Your task to perform on an android device: turn on location history Image 0: 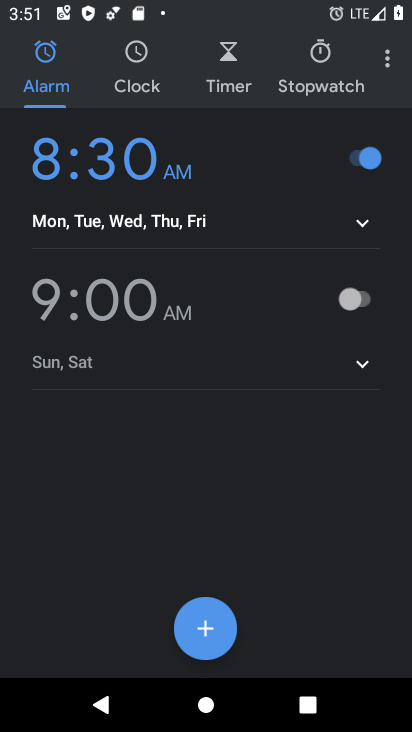
Step 0: press back button
Your task to perform on an android device: turn on location history Image 1: 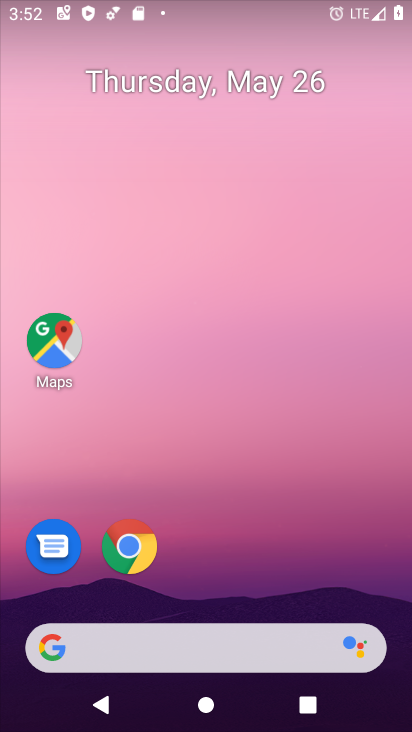
Step 1: drag from (250, 594) to (262, 53)
Your task to perform on an android device: turn on location history Image 2: 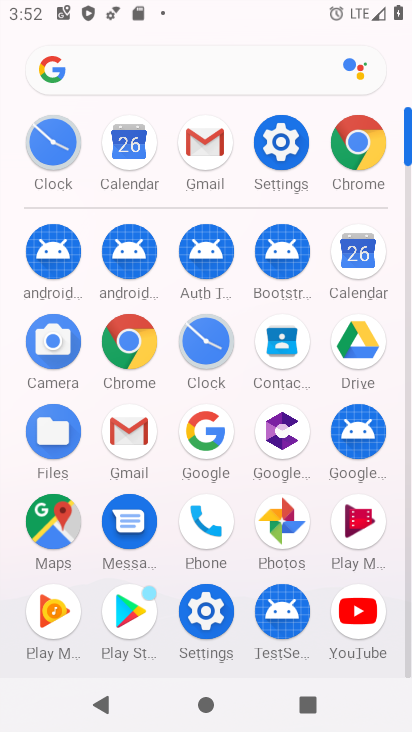
Step 2: click (277, 133)
Your task to perform on an android device: turn on location history Image 3: 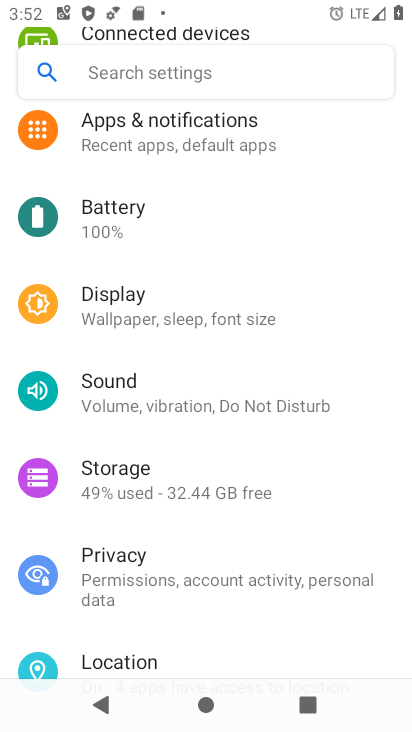
Step 3: drag from (133, 608) to (180, 219)
Your task to perform on an android device: turn on location history Image 4: 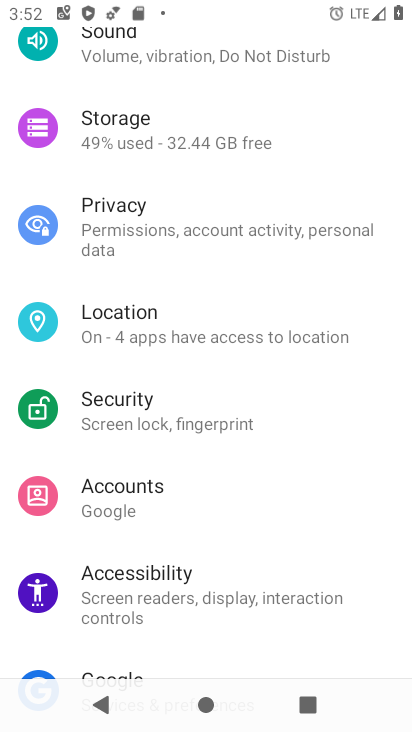
Step 4: click (103, 310)
Your task to perform on an android device: turn on location history Image 5: 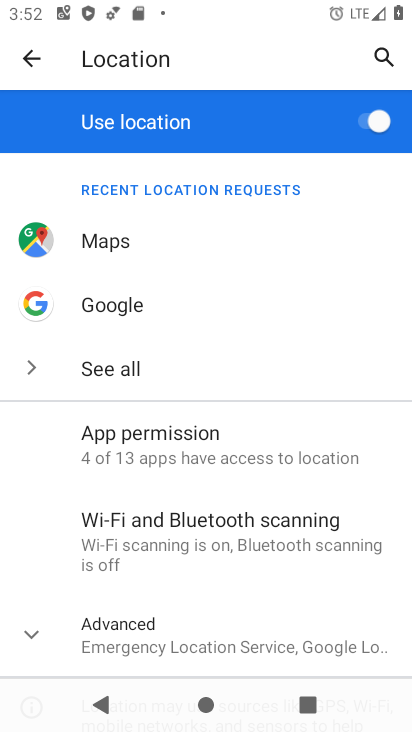
Step 5: drag from (173, 609) to (189, 229)
Your task to perform on an android device: turn on location history Image 6: 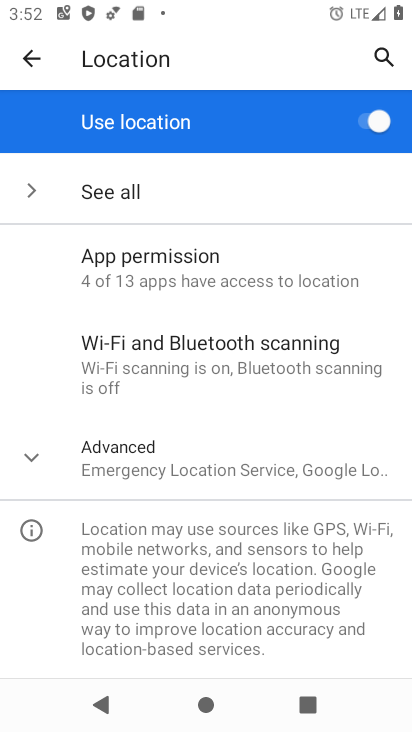
Step 6: click (228, 462)
Your task to perform on an android device: turn on location history Image 7: 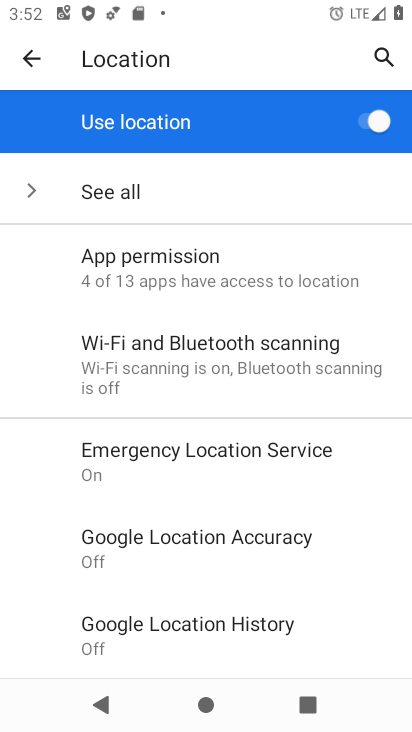
Step 7: click (195, 622)
Your task to perform on an android device: turn on location history Image 8: 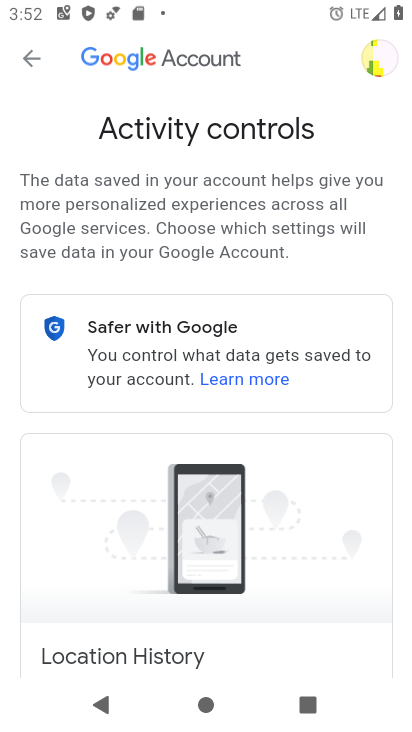
Step 8: drag from (204, 608) to (267, 124)
Your task to perform on an android device: turn on location history Image 9: 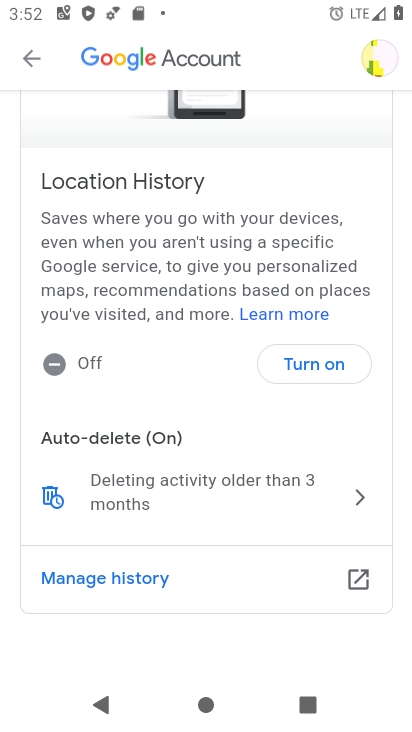
Step 9: click (318, 367)
Your task to perform on an android device: turn on location history Image 10: 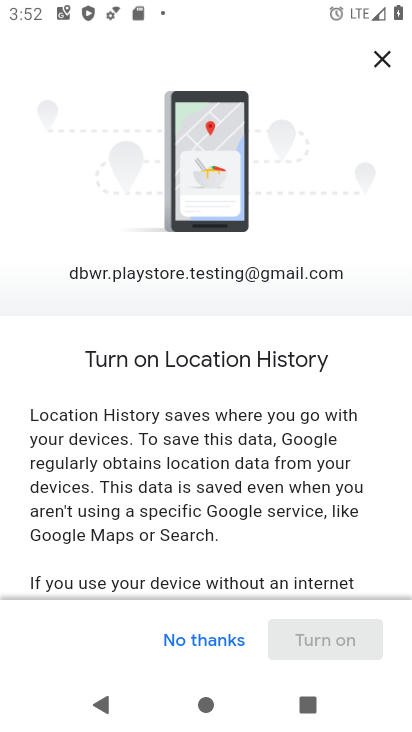
Step 10: drag from (228, 530) to (266, 75)
Your task to perform on an android device: turn on location history Image 11: 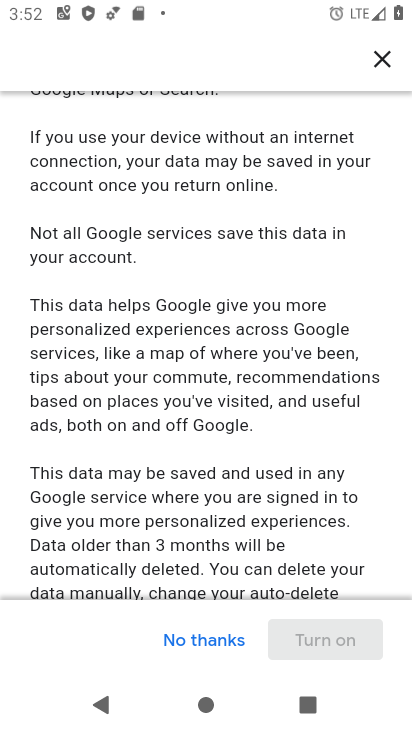
Step 11: drag from (238, 525) to (324, 27)
Your task to perform on an android device: turn on location history Image 12: 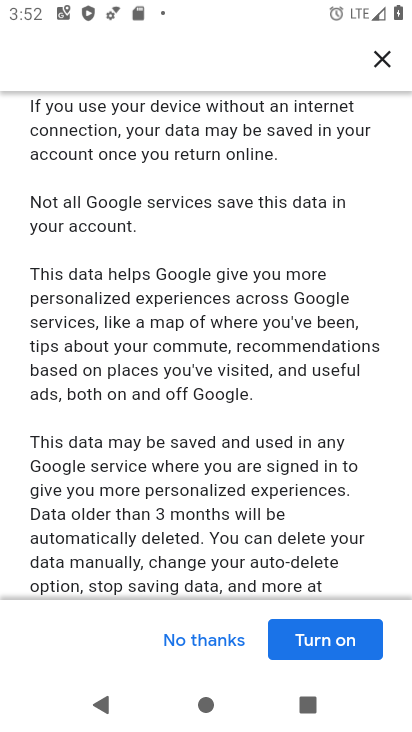
Step 12: click (325, 646)
Your task to perform on an android device: turn on location history Image 13: 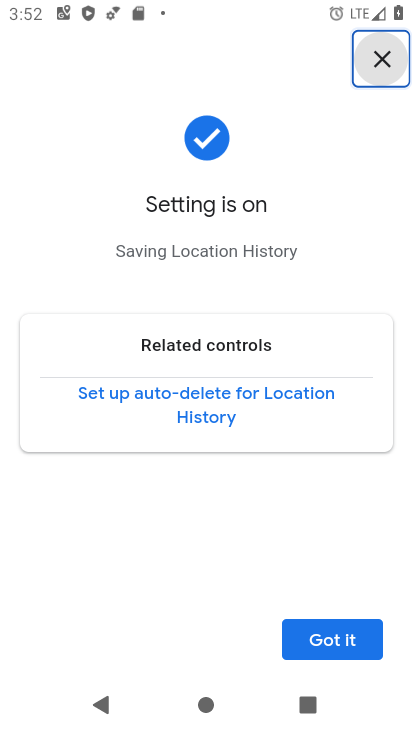
Step 13: click (325, 647)
Your task to perform on an android device: turn on location history Image 14: 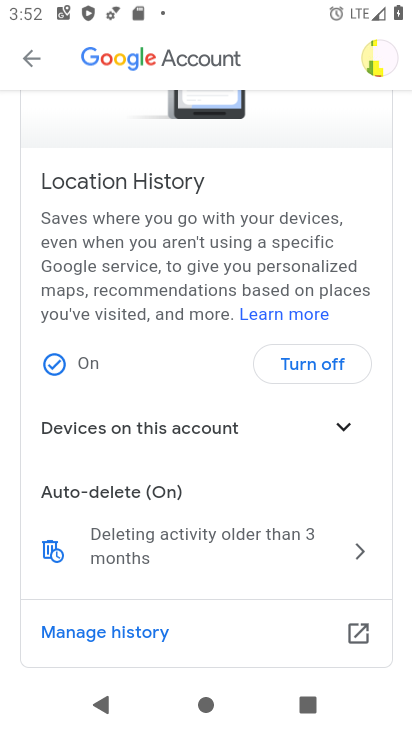
Step 14: task complete